Your task to perform on an android device: open app "Reddit" (install if not already installed) Image 0: 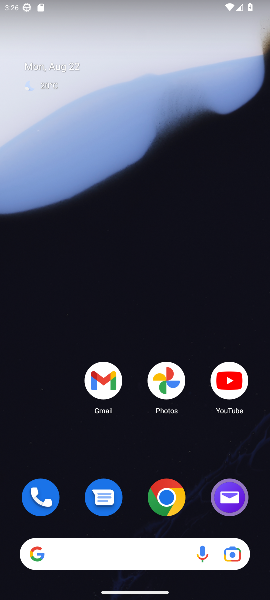
Step 0: press home button
Your task to perform on an android device: open app "Reddit" (install if not already installed) Image 1: 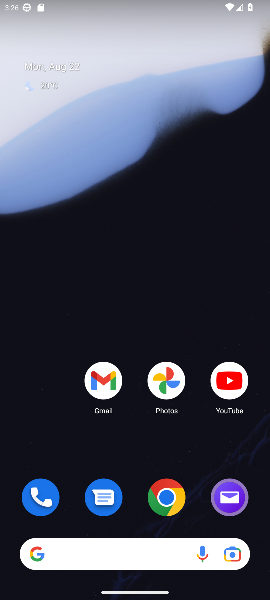
Step 1: drag from (50, 415) to (44, 190)
Your task to perform on an android device: open app "Reddit" (install if not already installed) Image 2: 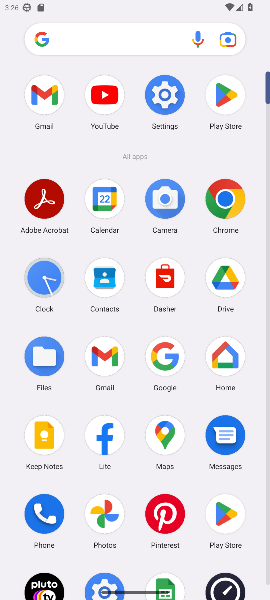
Step 2: click (222, 98)
Your task to perform on an android device: open app "Reddit" (install if not already installed) Image 3: 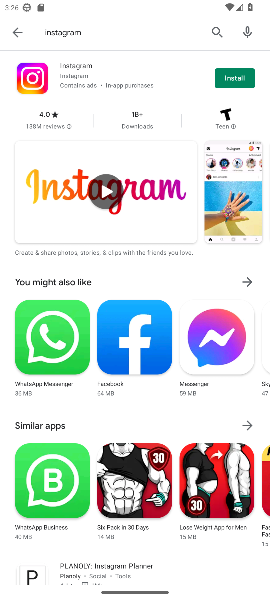
Step 3: press back button
Your task to perform on an android device: open app "Reddit" (install if not already installed) Image 4: 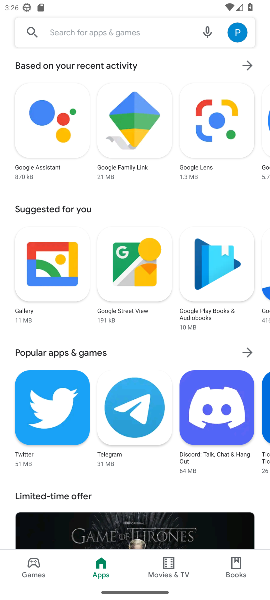
Step 4: click (150, 25)
Your task to perform on an android device: open app "Reddit" (install if not already installed) Image 5: 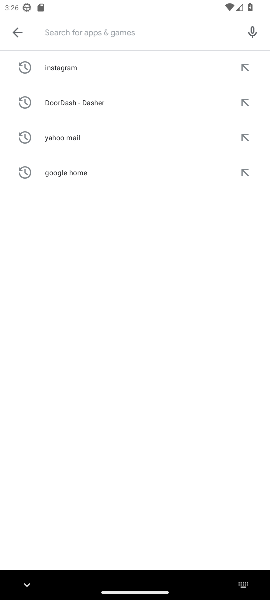
Step 5: type "reddit"
Your task to perform on an android device: open app "Reddit" (install if not already installed) Image 6: 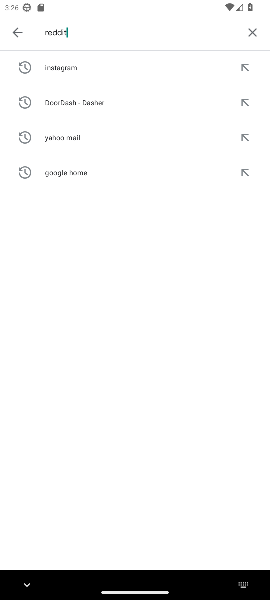
Step 6: press enter
Your task to perform on an android device: open app "Reddit" (install if not already installed) Image 7: 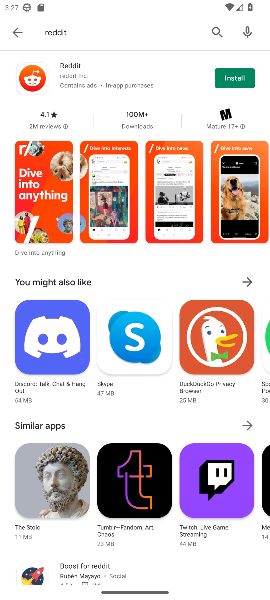
Step 7: task complete